Your task to perform on an android device: turn off translation in the chrome app Image 0: 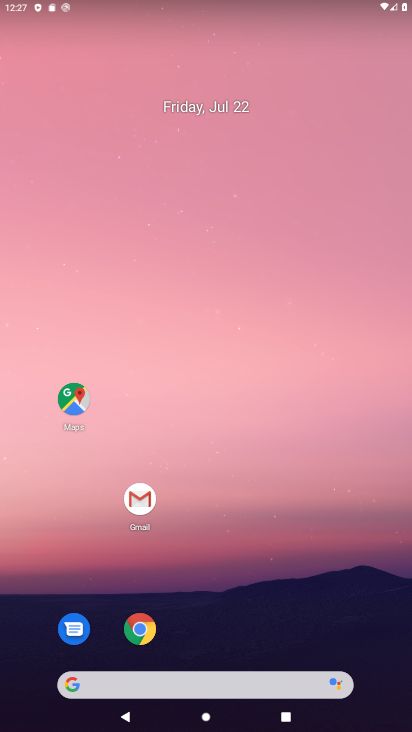
Step 0: drag from (153, 437) to (110, 219)
Your task to perform on an android device: turn off translation in the chrome app Image 1: 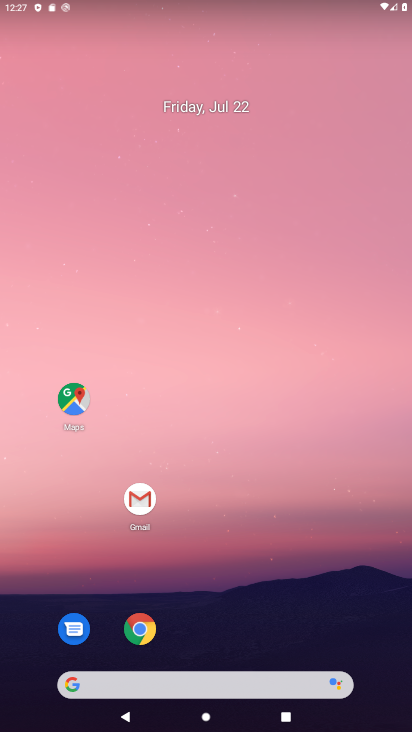
Step 1: drag from (273, 666) to (213, 283)
Your task to perform on an android device: turn off translation in the chrome app Image 2: 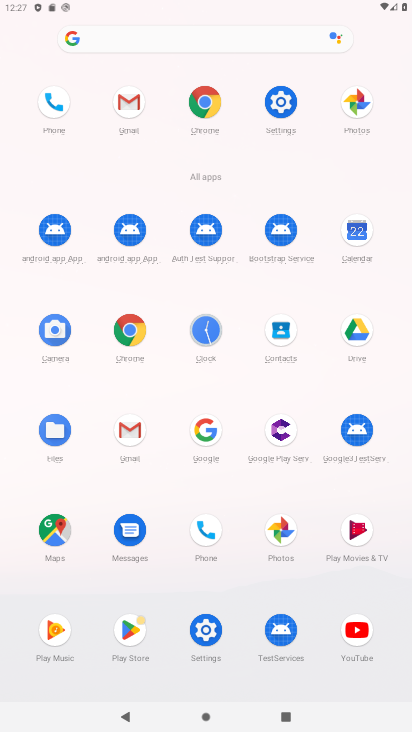
Step 2: drag from (253, 693) to (237, 243)
Your task to perform on an android device: turn off translation in the chrome app Image 3: 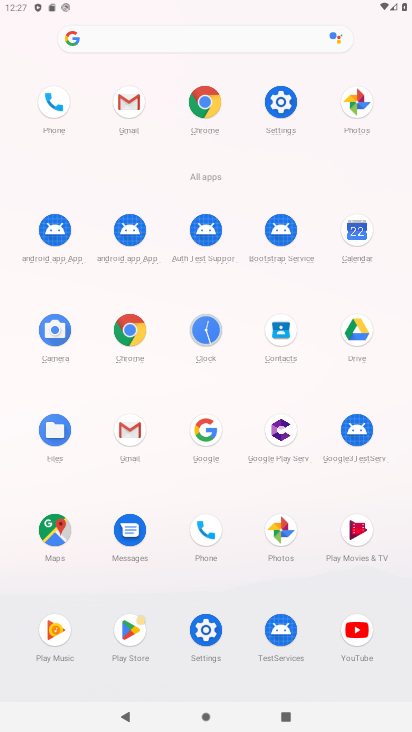
Step 3: click (197, 114)
Your task to perform on an android device: turn off translation in the chrome app Image 4: 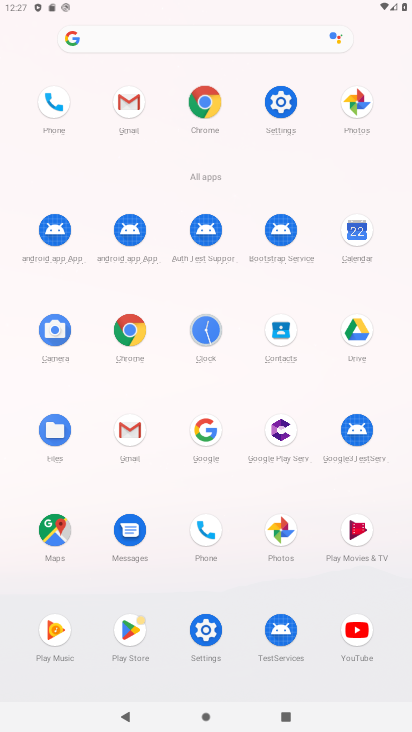
Step 4: click (198, 113)
Your task to perform on an android device: turn off translation in the chrome app Image 5: 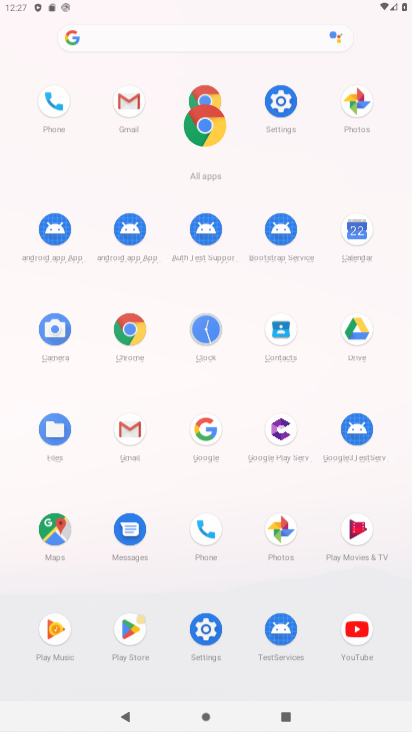
Step 5: click (198, 113)
Your task to perform on an android device: turn off translation in the chrome app Image 6: 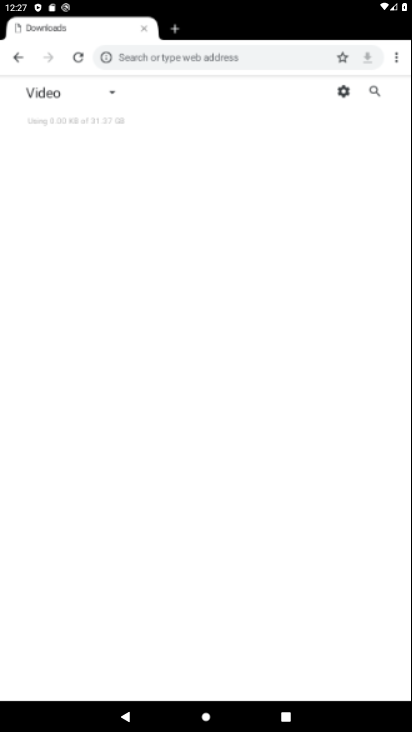
Step 6: click (203, 106)
Your task to perform on an android device: turn off translation in the chrome app Image 7: 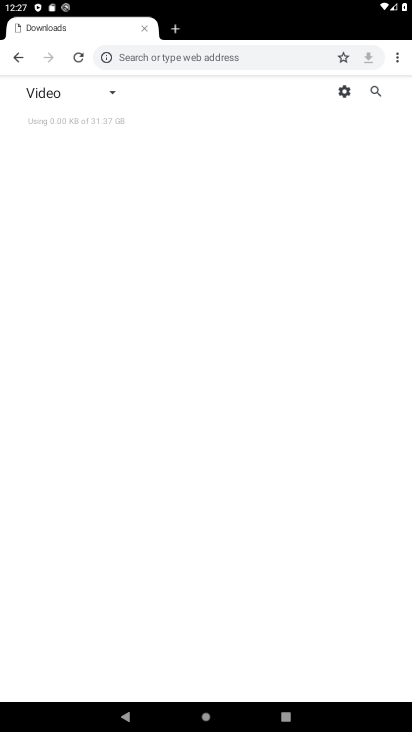
Step 7: drag from (394, 61) to (273, 259)
Your task to perform on an android device: turn off translation in the chrome app Image 8: 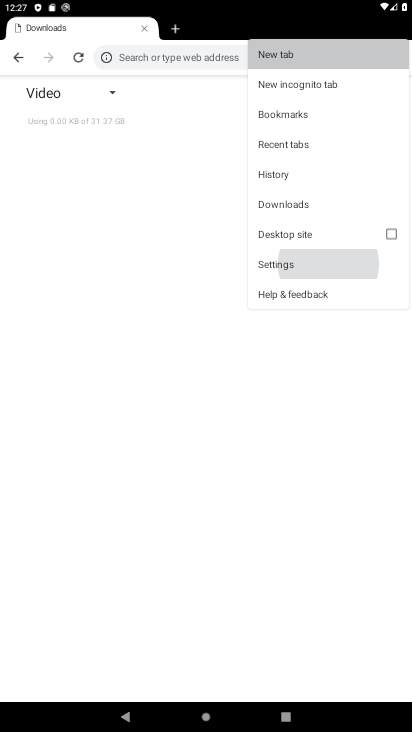
Step 8: click (270, 258)
Your task to perform on an android device: turn off translation in the chrome app Image 9: 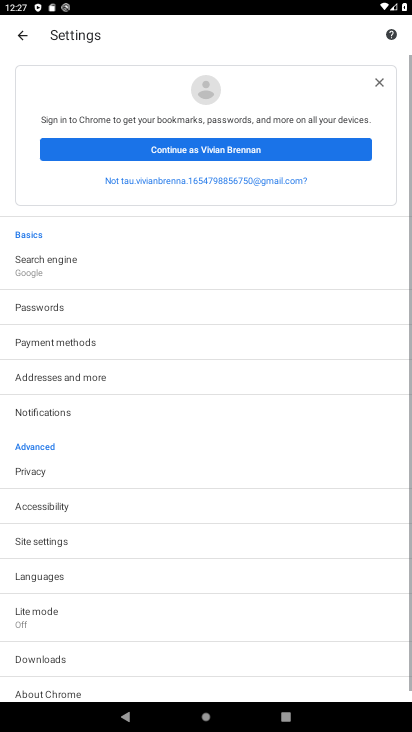
Step 9: drag from (56, 547) to (54, 283)
Your task to perform on an android device: turn off translation in the chrome app Image 10: 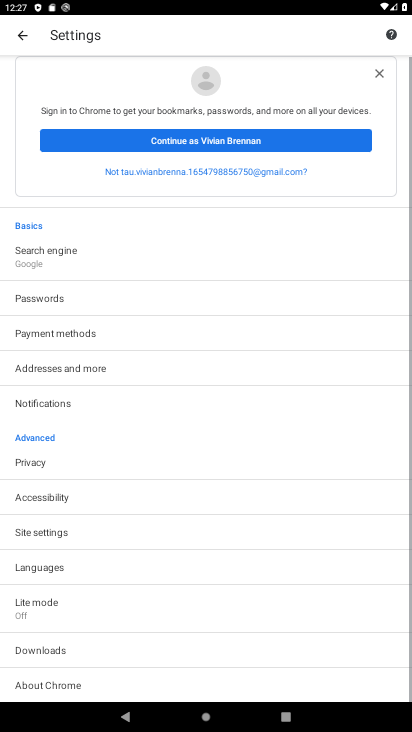
Step 10: drag from (101, 587) to (152, 231)
Your task to perform on an android device: turn off translation in the chrome app Image 11: 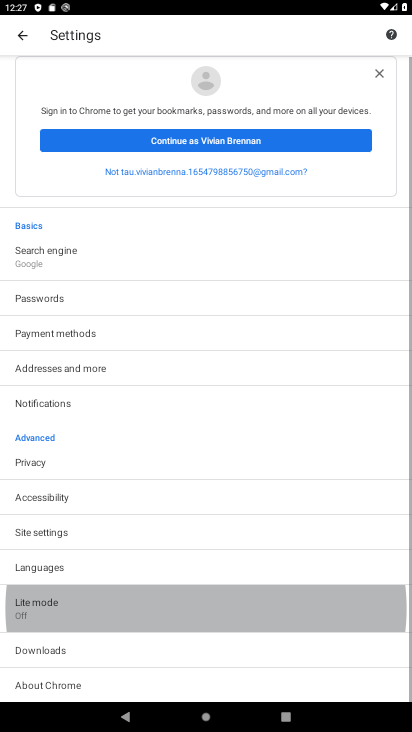
Step 11: drag from (108, 549) to (138, 252)
Your task to perform on an android device: turn off translation in the chrome app Image 12: 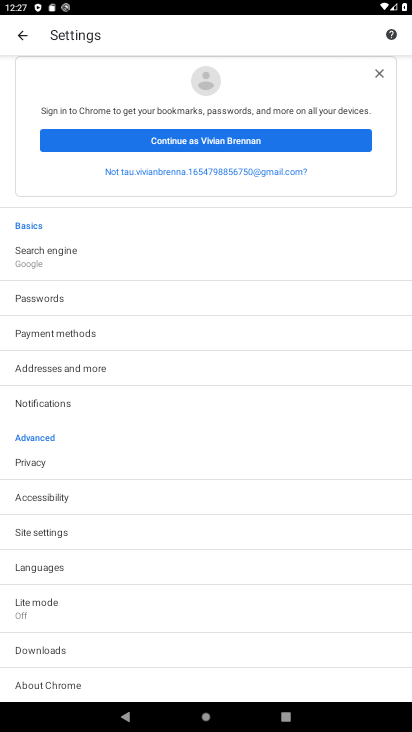
Step 12: click (61, 568)
Your task to perform on an android device: turn off translation in the chrome app Image 13: 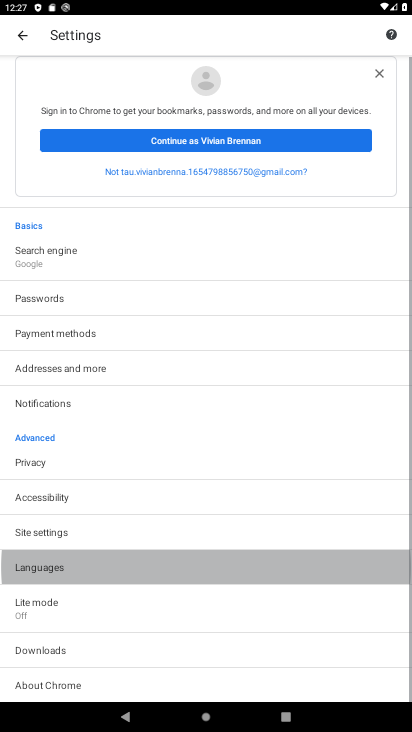
Step 13: click (61, 568)
Your task to perform on an android device: turn off translation in the chrome app Image 14: 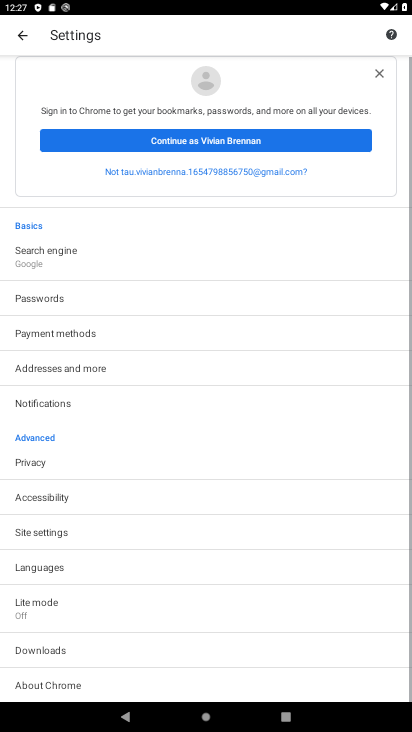
Step 14: click (62, 567)
Your task to perform on an android device: turn off translation in the chrome app Image 15: 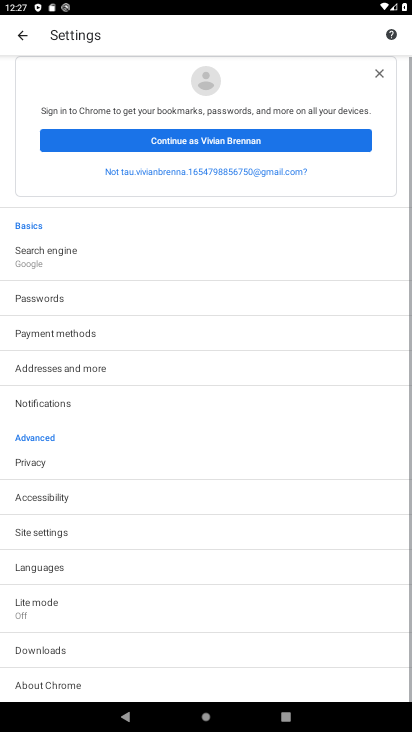
Step 15: click (63, 566)
Your task to perform on an android device: turn off translation in the chrome app Image 16: 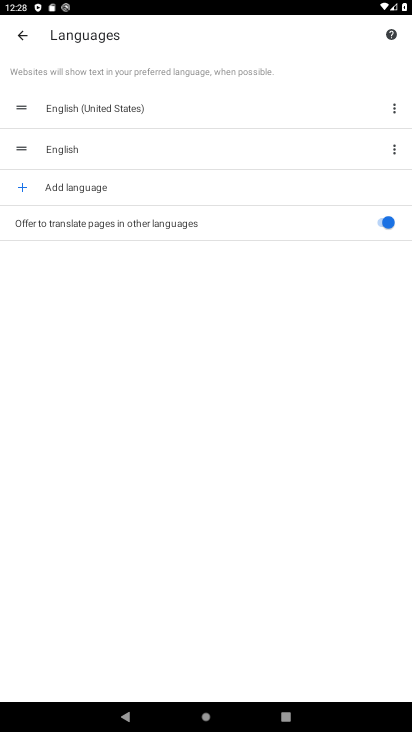
Step 16: click (384, 216)
Your task to perform on an android device: turn off translation in the chrome app Image 17: 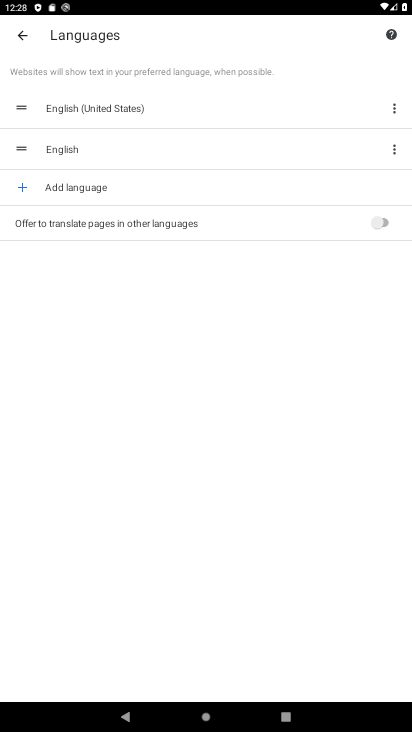
Step 17: task complete